Your task to perform on an android device: turn notification dots on Image 0: 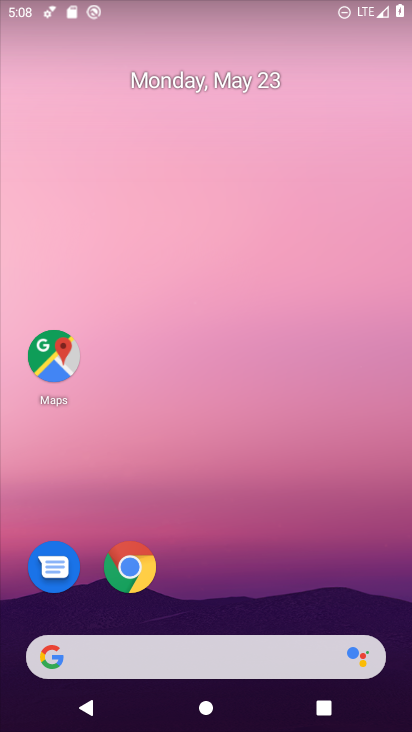
Step 0: drag from (241, 564) to (239, 172)
Your task to perform on an android device: turn notification dots on Image 1: 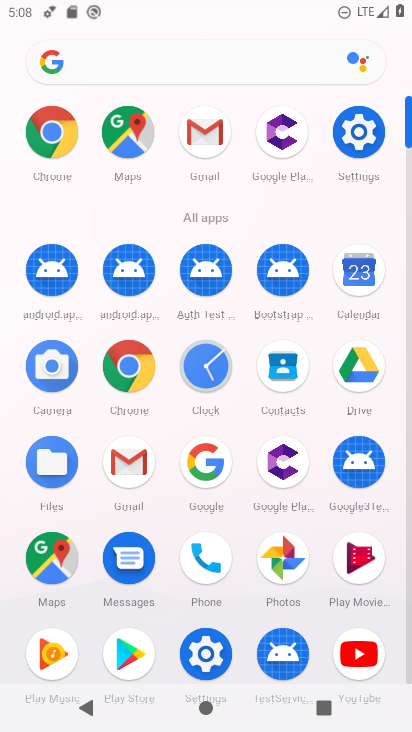
Step 1: click (359, 137)
Your task to perform on an android device: turn notification dots on Image 2: 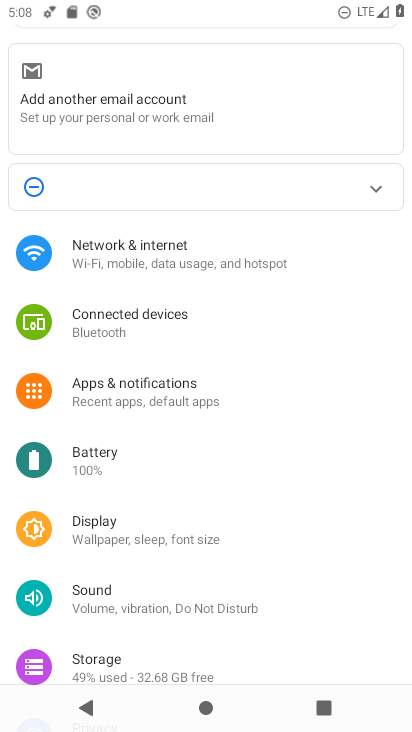
Step 2: click (132, 398)
Your task to perform on an android device: turn notification dots on Image 3: 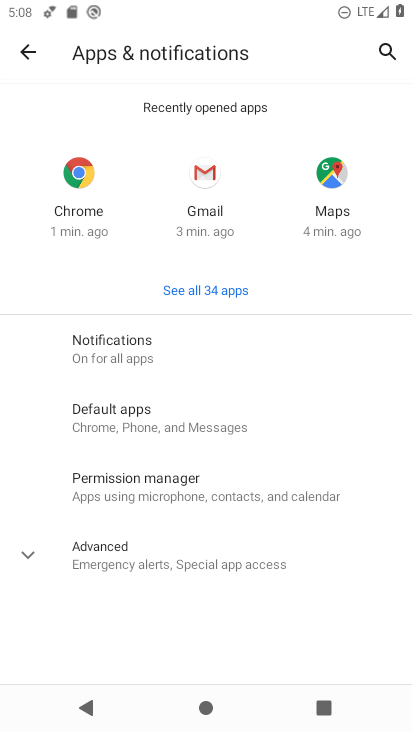
Step 3: click (109, 349)
Your task to perform on an android device: turn notification dots on Image 4: 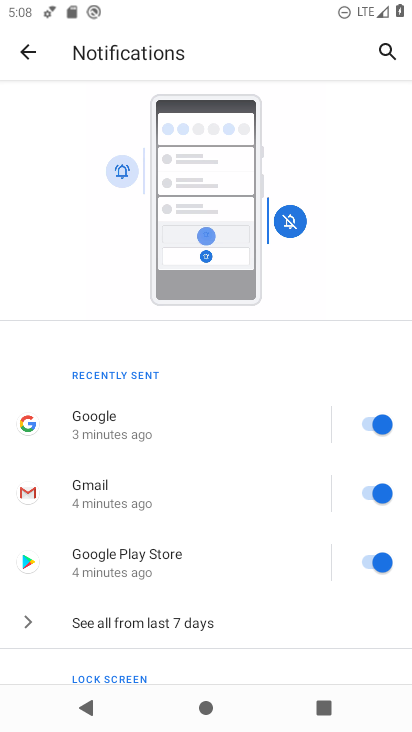
Step 4: drag from (129, 592) to (216, 473)
Your task to perform on an android device: turn notification dots on Image 5: 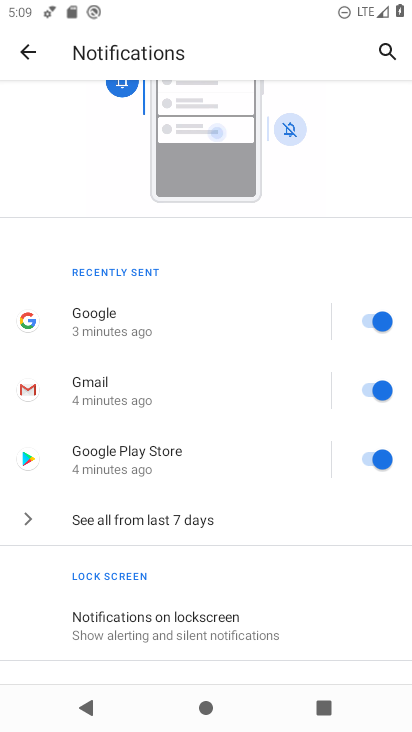
Step 5: drag from (178, 596) to (209, 488)
Your task to perform on an android device: turn notification dots on Image 6: 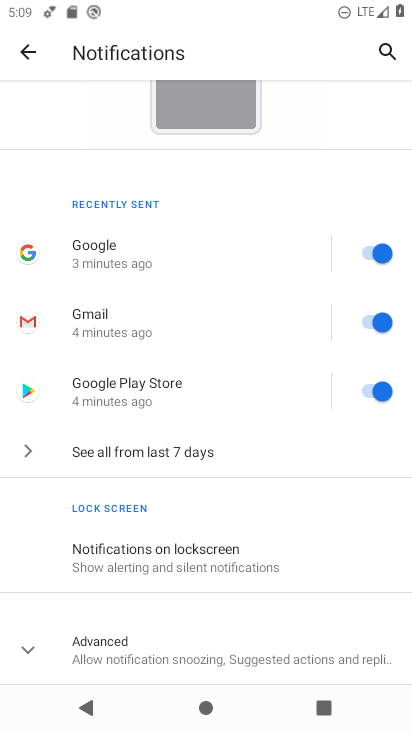
Step 6: click (103, 650)
Your task to perform on an android device: turn notification dots on Image 7: 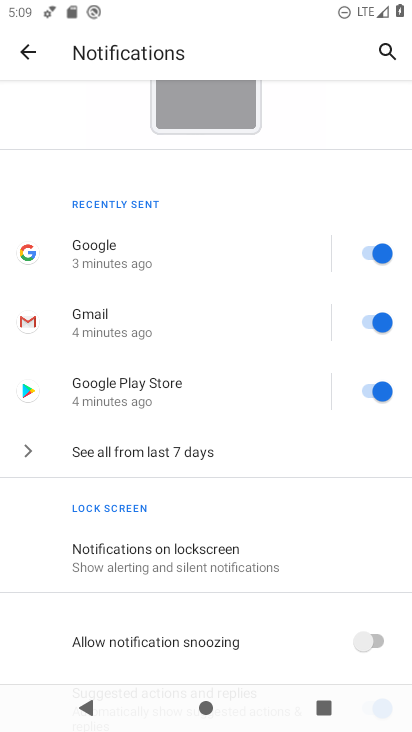
Step 7: task complete